Your task to perform on an android device: open sync settings in chrome Image 0: 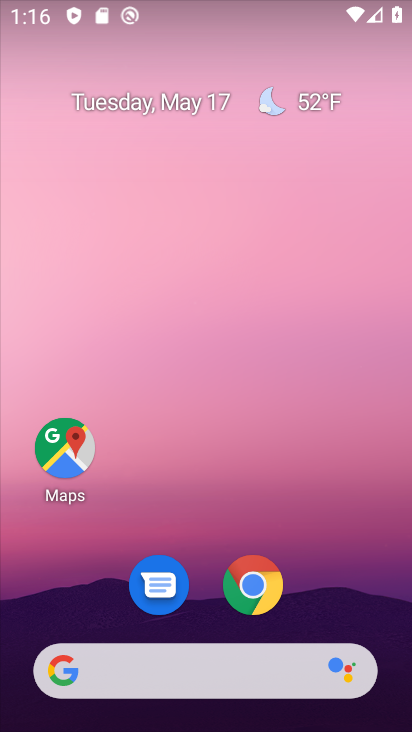
Step 0: click (262, 597)
Your task to perform on an android device: open sync settings in chrome Image 1: 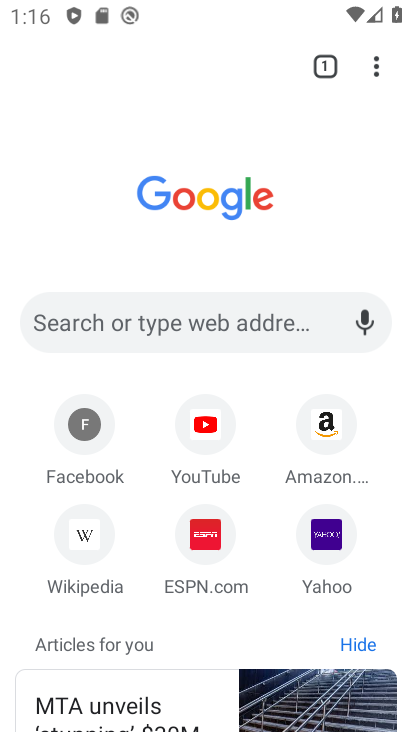
Step 1: click (367, 67)
Your task to perform on an android device: open sync settings in chrome Image 2: 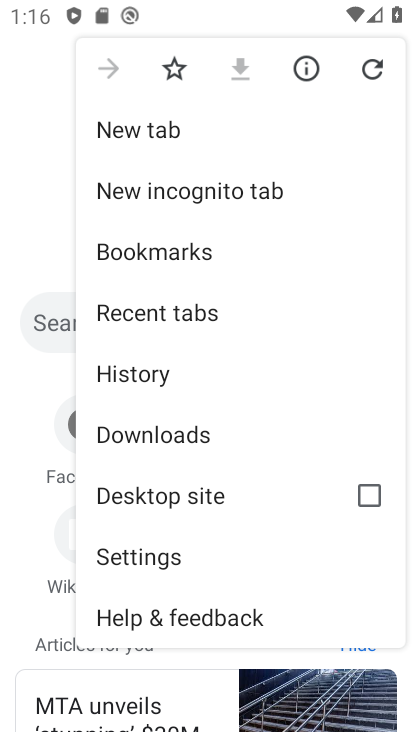
Step 2: click (195, 553)
Your task to perform on an android device: open sync settings in chrome Image 3: 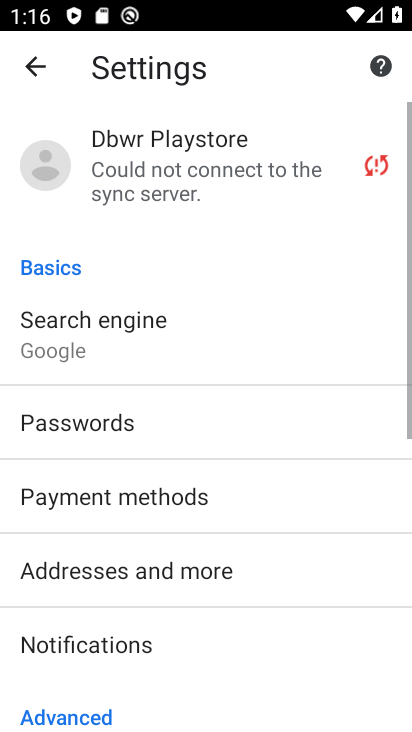
Step 3: click (212, 158)
Your task to perform on an android device: open sync settings in chrome Image 4: 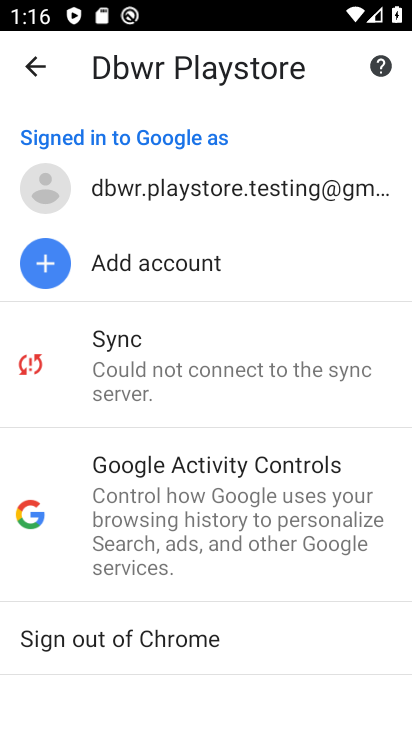
Step 4: click (170, 356)
Your task to perform on an android device: open sync settings in chrome Image 5: 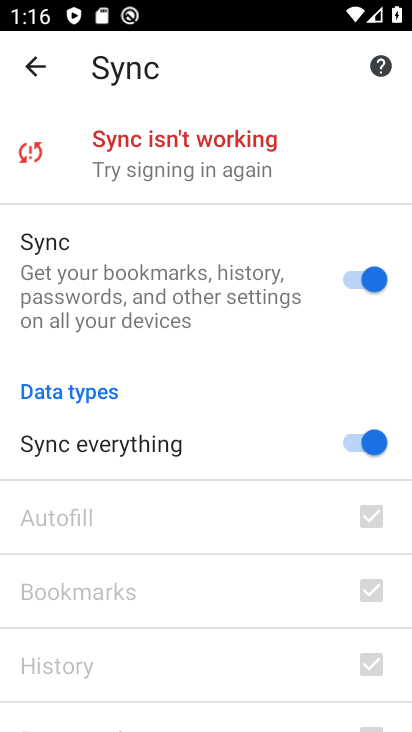
Step 5: task complete